Your task to perform on an android device: change the upload size in google photos Image 0: 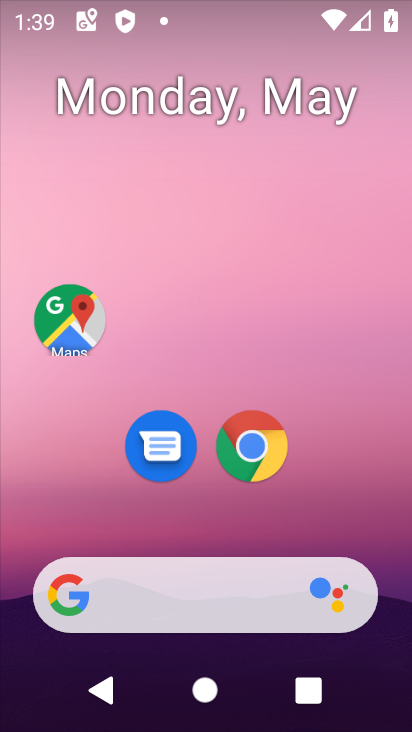
Step 0: drag from (256, 613) to (220, 124)
Your task to perform on an android device: change the upload size in google photos Image 1: 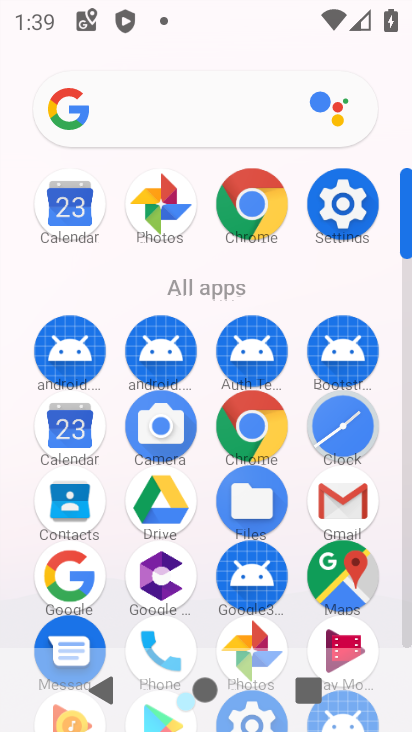
Step 1: click (247, 631)
Your task to perform on an android device: change the upload size in google photos Image 2: 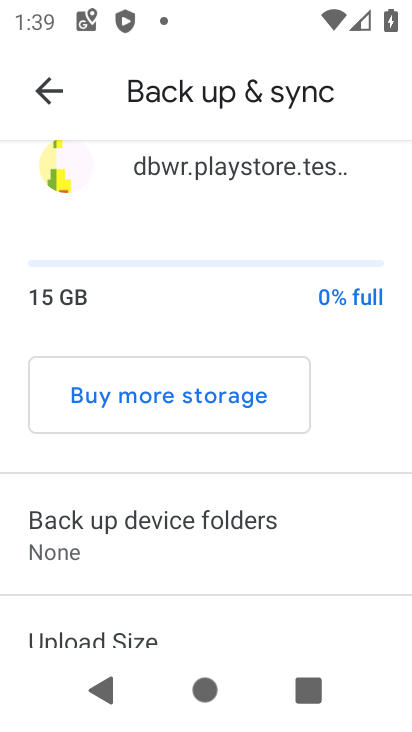
Step 2: drag from (208, 537) to (168, 32)
Your task to perform on an android device: change the upload size in google photos Image 3: 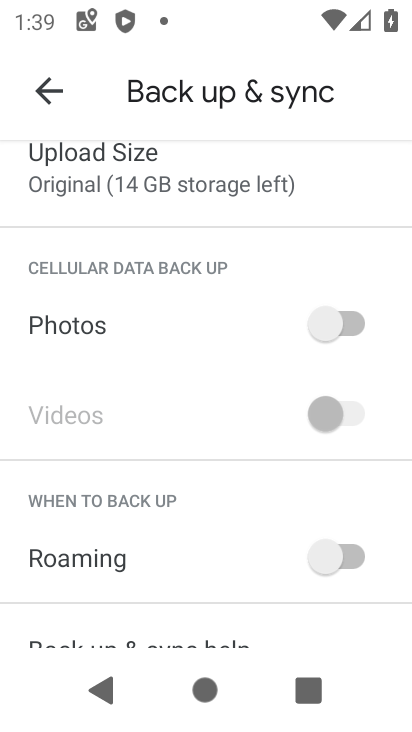
Step 3: click (154, 188)
Your task to perform on an android device: change the upload size in google photos Image 4: 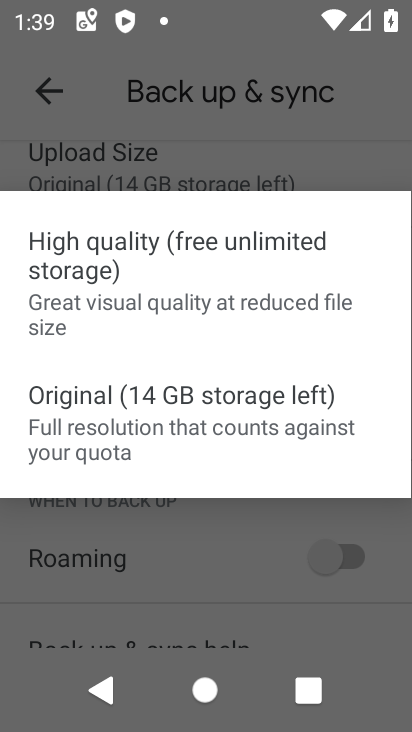
Step 4: click (151, 428)
Your task to perform on an android device: change the upload size in google photos Image 5: 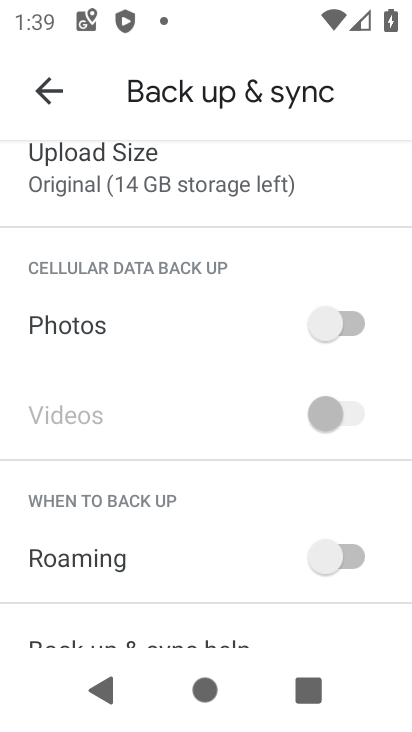
Step 5: task complete